Your task to perform on an android device: Go to settings Image 0: 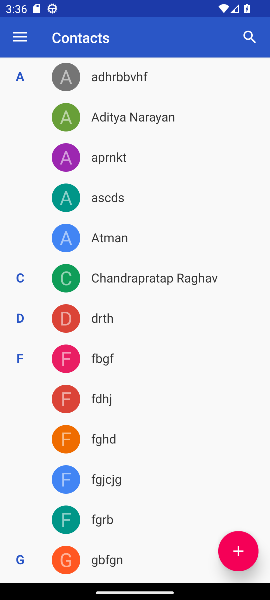
Step 0: press home button
Your task to perform on an android device: Go to settings Image 1: 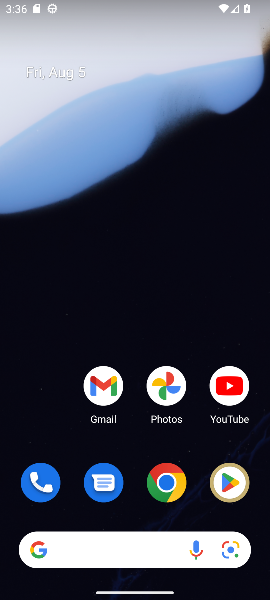
Step 1: drag from (134, 449) to (155, 0)
Your task to perform on an android device: Go to settings Image 2: 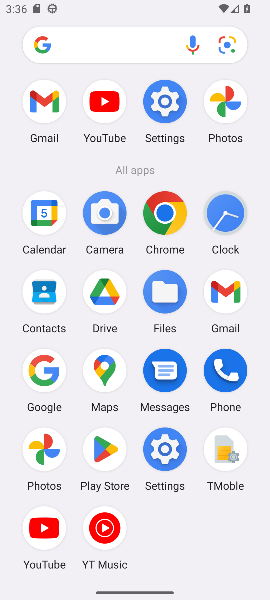
Step 2: click (162, 93)
Your task to perform on an android device: Go to settings Image 3: 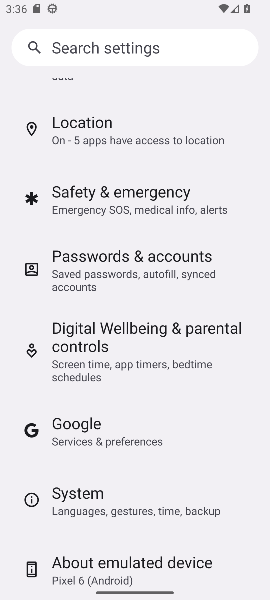
Step 3: task complete